Your task to perform on an android device: turn off notifications in google photos Image 0: 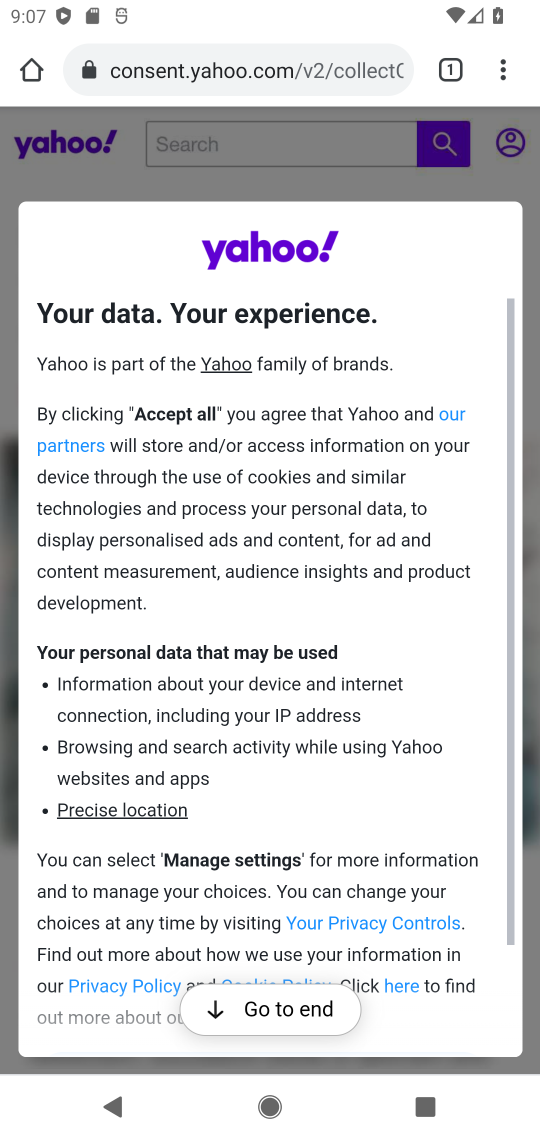
Step 0: press home button
Your task to perform on an android device: turn off notifications in google photos Image 1: 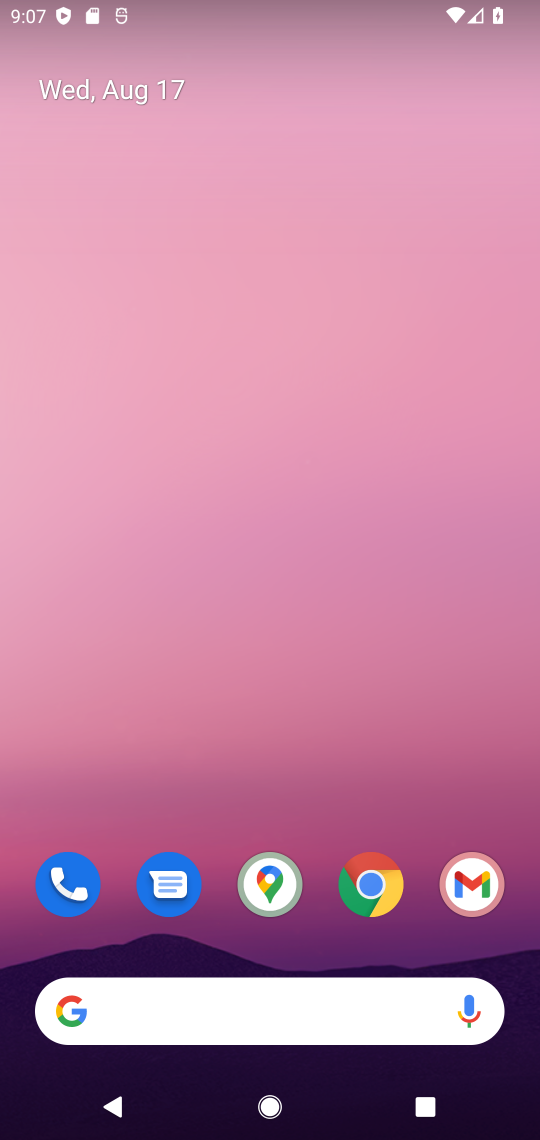
Step 1: drag from (334, 735) to (244, 126)
Your task to perform on an android device: turn off notifications in google photos Image 2: 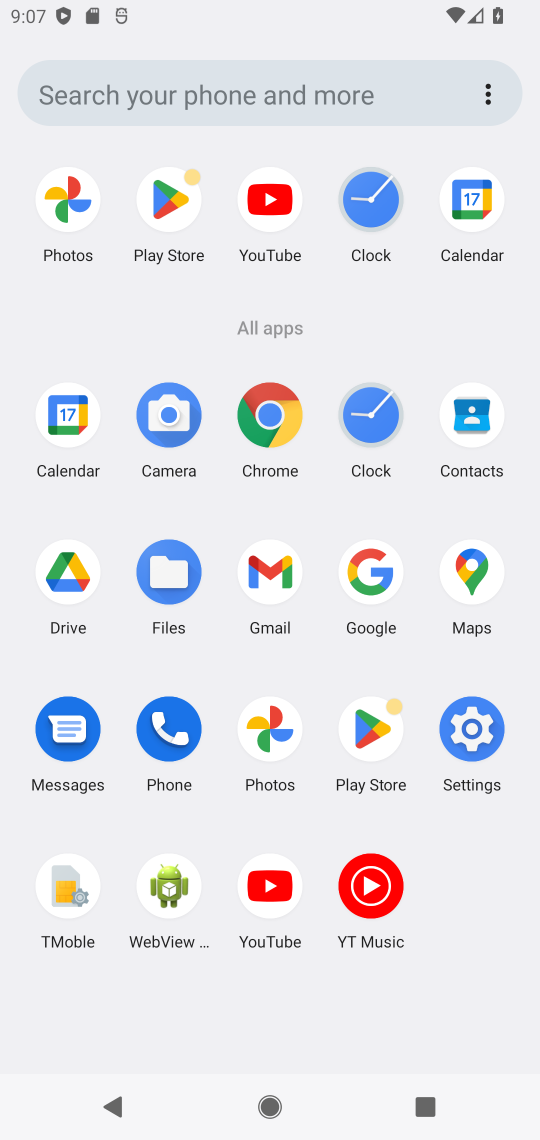
Step 2: click (79, 200)
Your task to perform on an android device: turn off notifications in google photos Image 3: 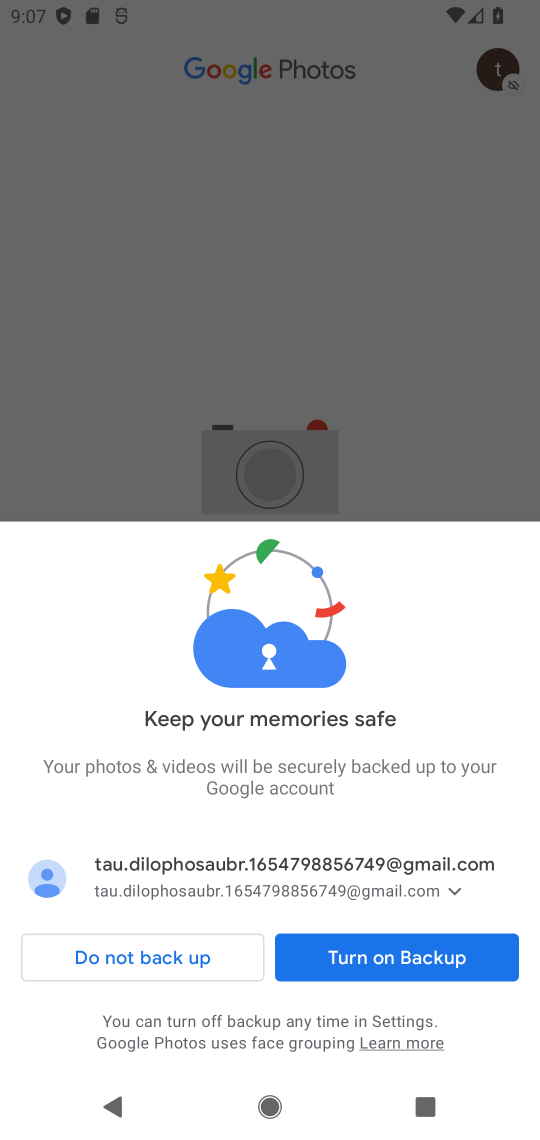
Step 3: click (215, 939)
Your task to perform on an android device: turn off notifications in google photos Image 4: 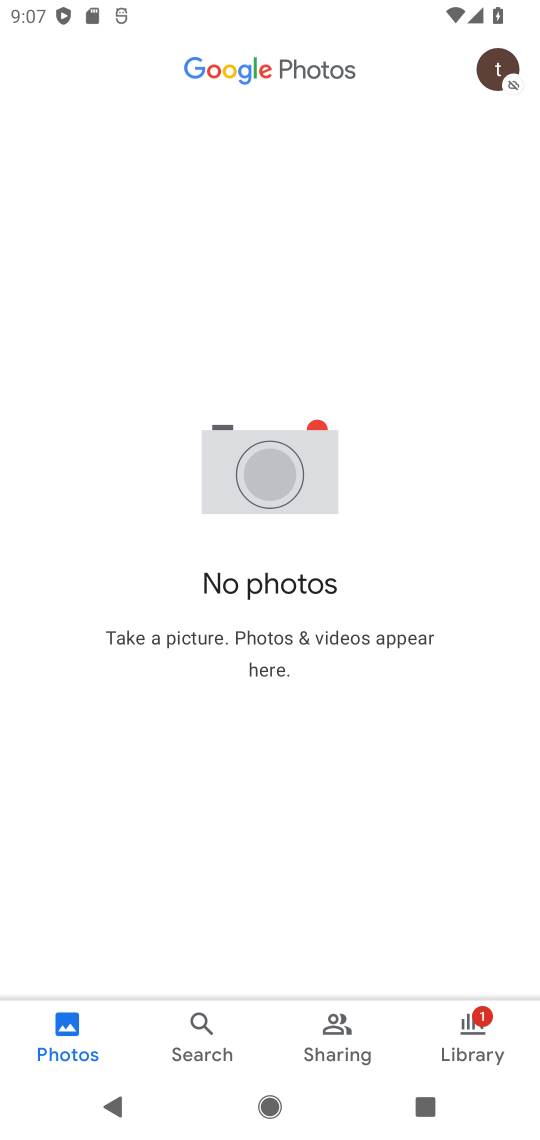
Step 4: click (498, 88)
Your task to perform on an android device: turn off notifications in google photos Image 5: 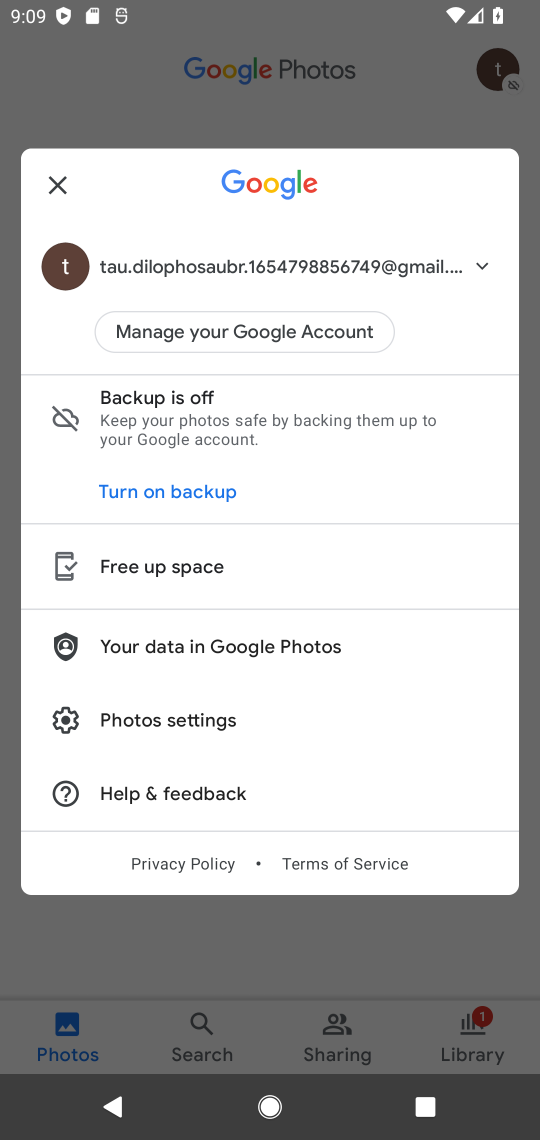
Step 5: click (204, 715)
Your task to perform on an android device: turn off notifications in google photos Image 6: 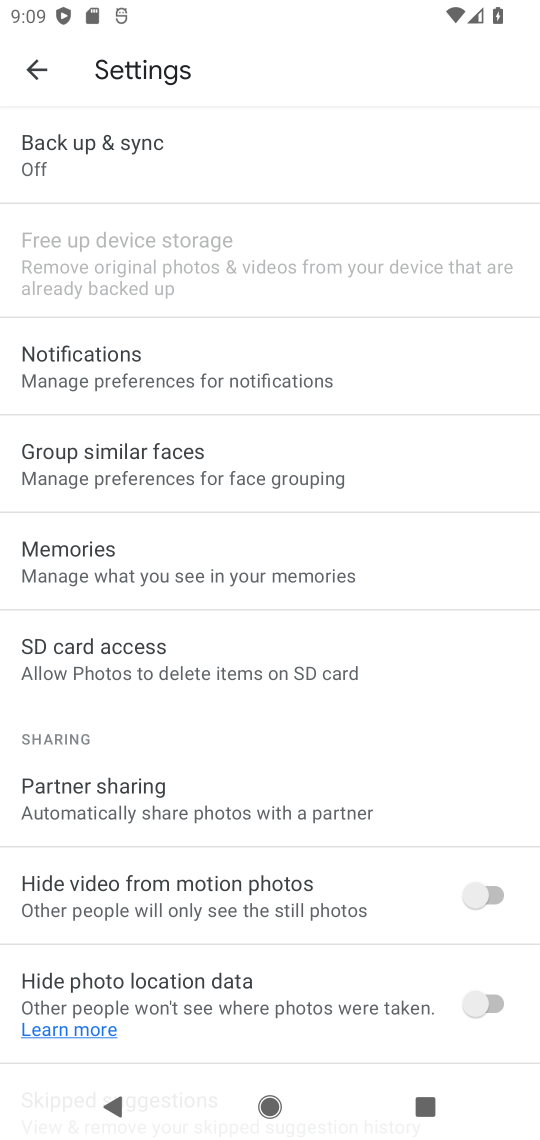
Step 6: drag from (227, 747) to (227, 497)
Your task to perform on an android device: turn off notifications in google photos Image 7: 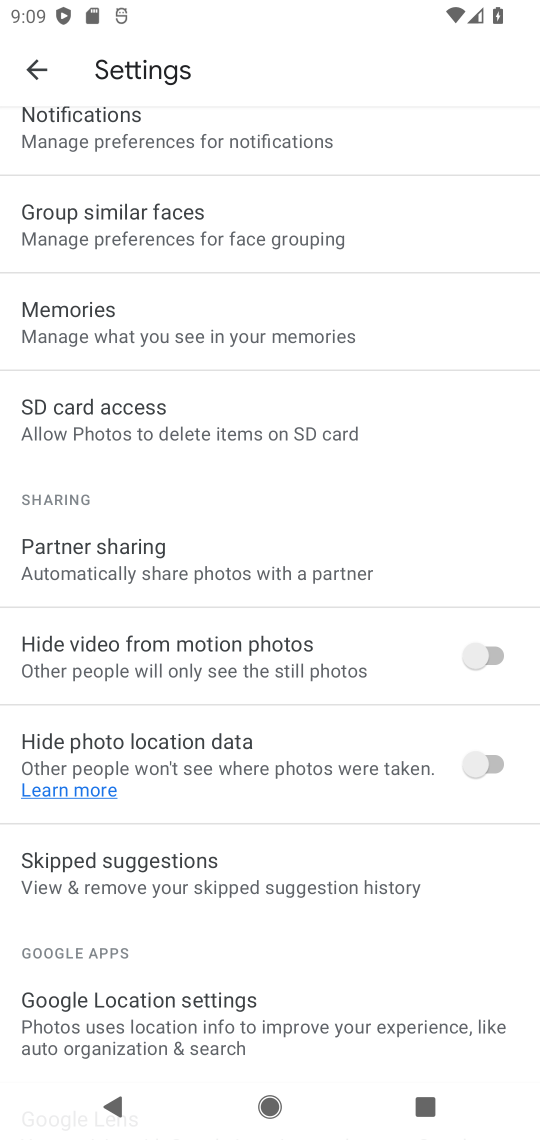
Step 7: drag from (227, 345) to (255, 655)
Your task to perform on an android device: turn off notifications in google photos Image 8: 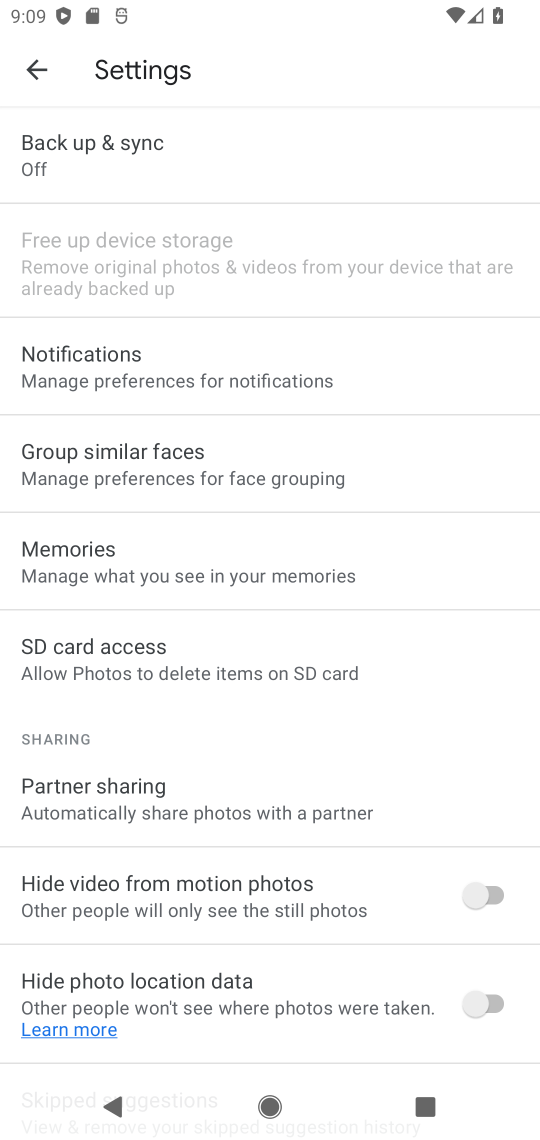
Step 8: click (113, 369)
Your task to perform on an android device: turn off notifications in google photos Image 9: 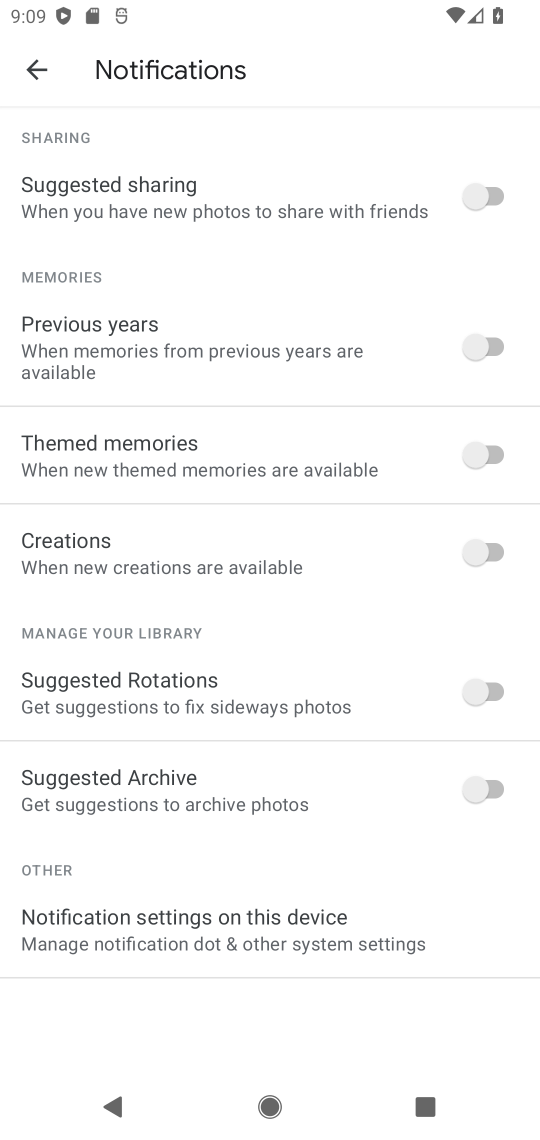
Step 9: drag from (332, 890) to (273, 134)
Your task to perform on an android device: turn off notifications in google photos Image 10: 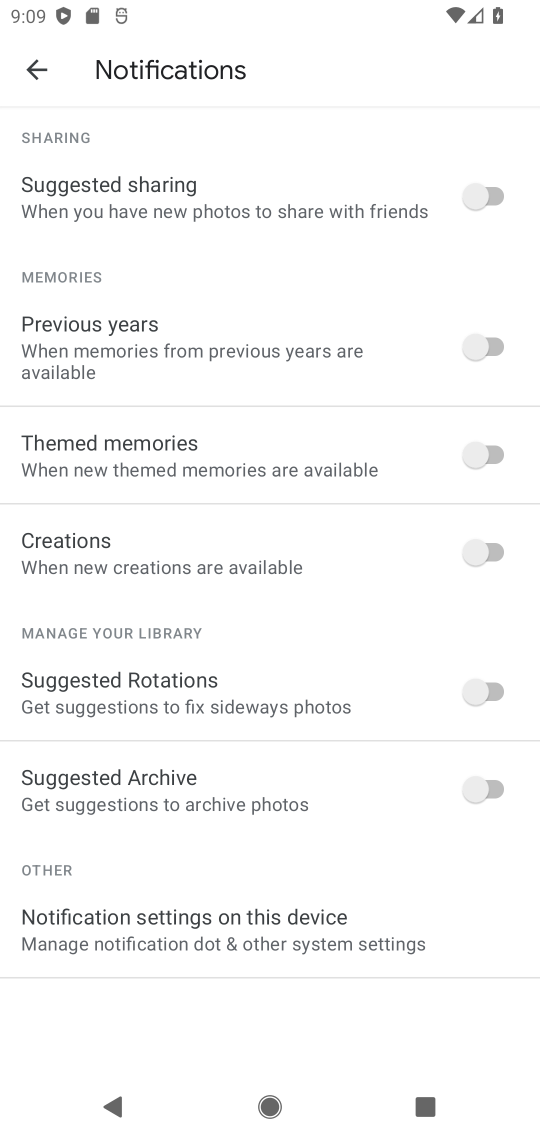
Step 10: drag from (264, 456) to (270, 884)
Your task to perform on an android device: turn off notifications in google photos Image 11: 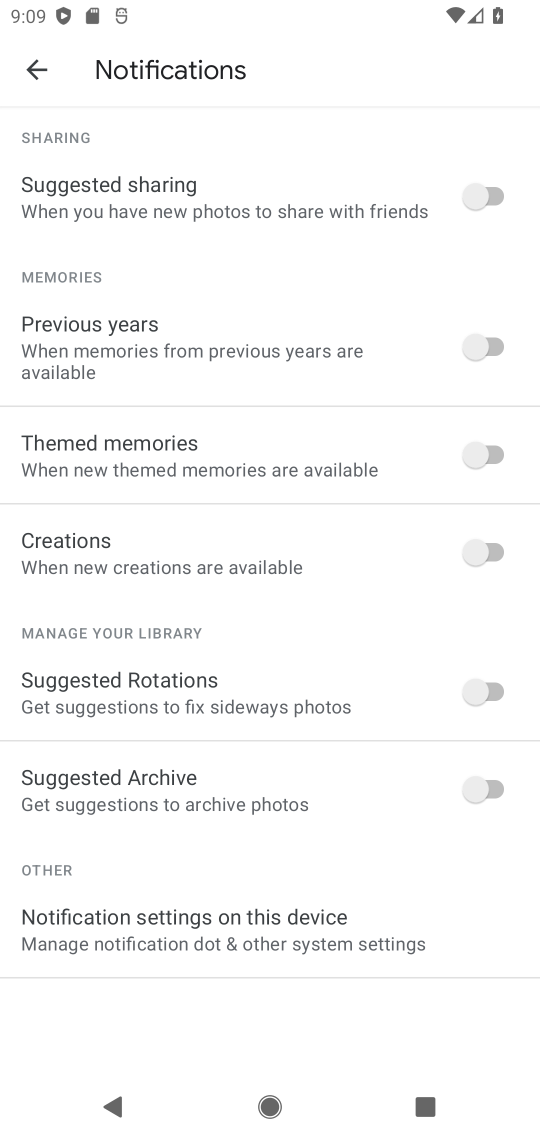
Step 11: drag from (348, 359) to (348, 1011)
Your task to perform on an android device: turn off notifications in google photos Image 12: 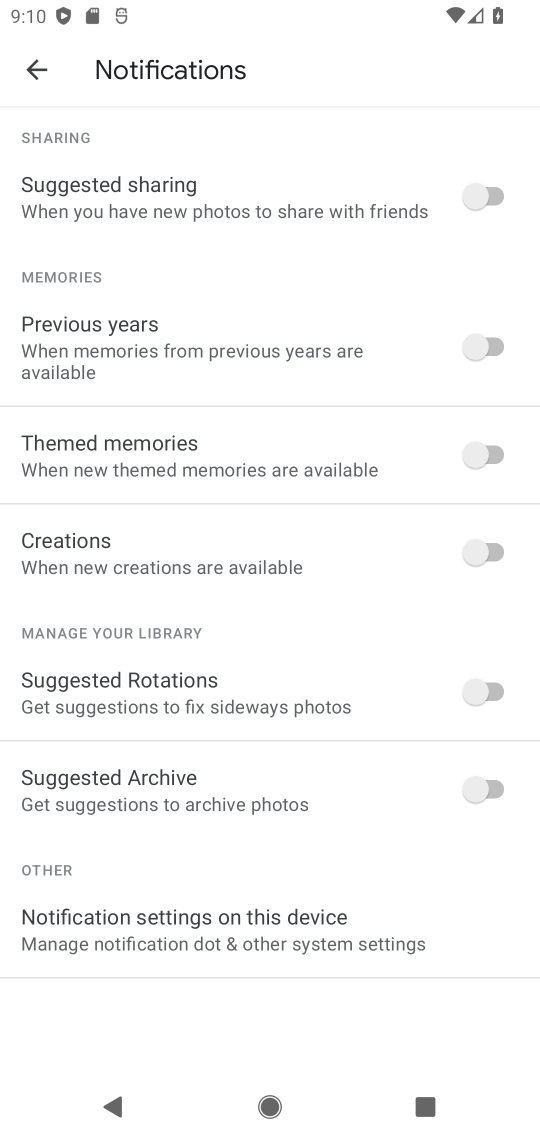
Step 12: click (42, 60)
Your task to perform on an android device: turn off notifications in google photos Image 13: 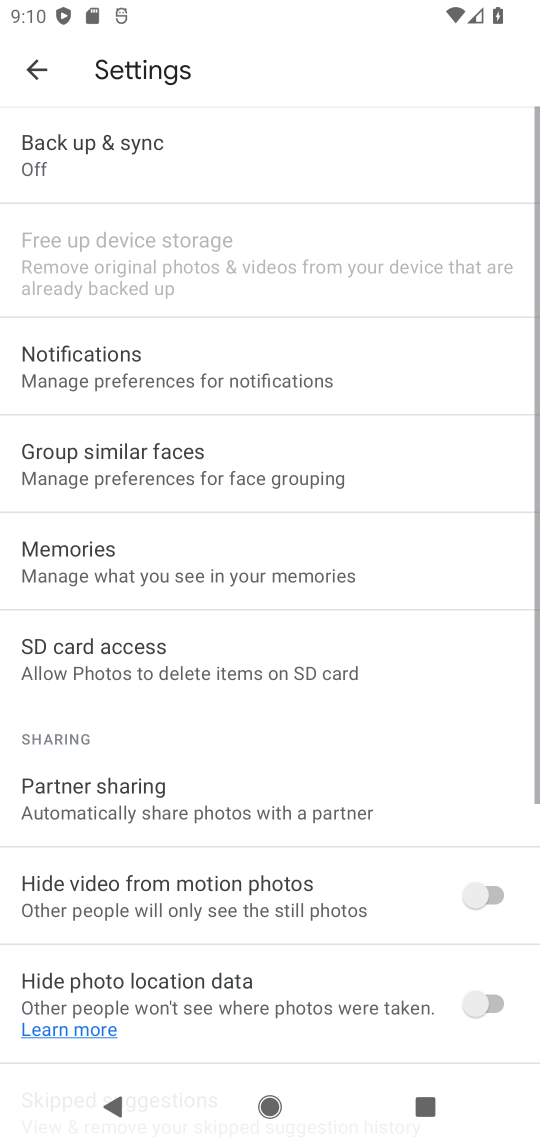
Step 13: drag from (185, 233) to (282, 871)
Your task to perform on an android device: turn off notifications in google photos Image 14: 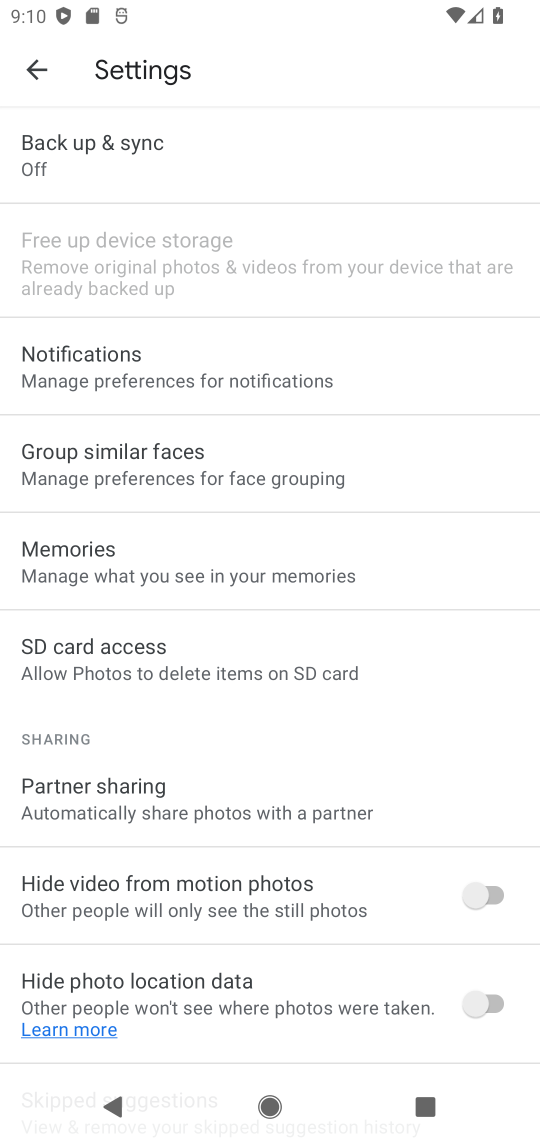
Step 14: click (116, 382)
Your task to perform on an android device: turn off notifications in google photos Image 15: 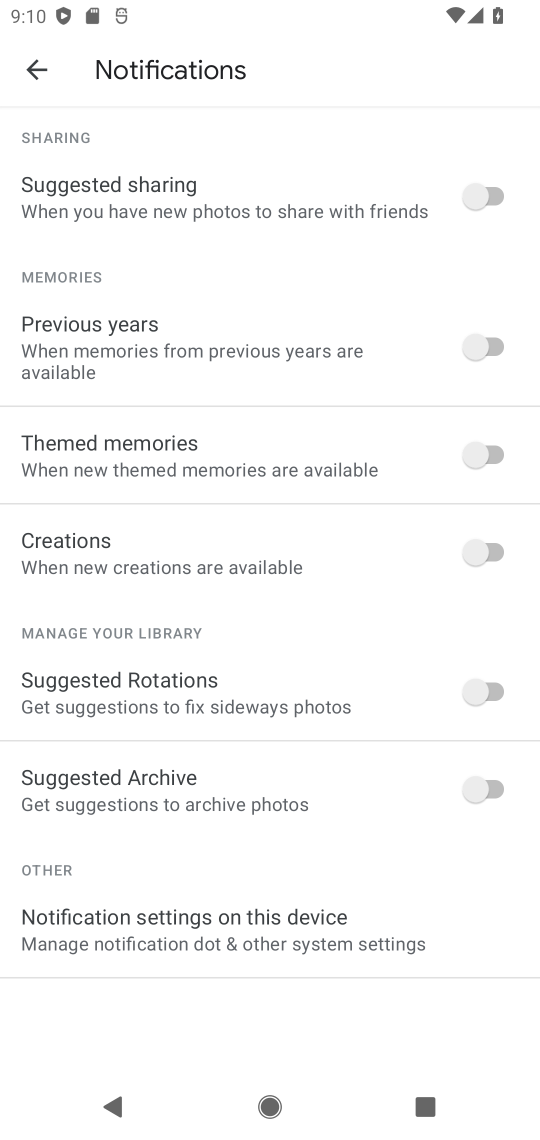
Step 15: task complete